Your task to perform on an android device: check storage Image 0: 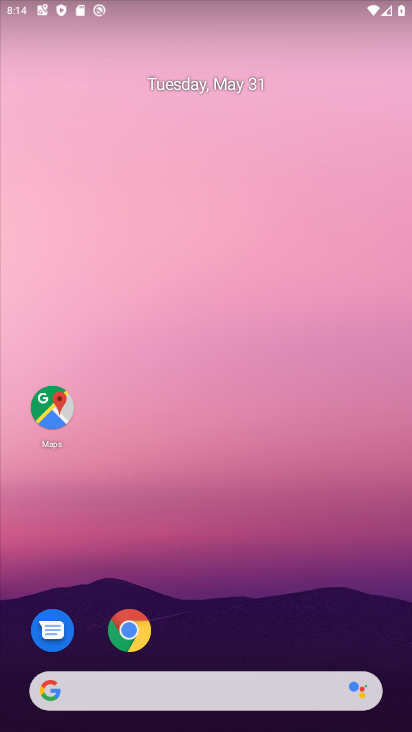
Step 0: drag from (197, 535) to (189, 212)
Your task to perform on an android device: check storage Image 1: 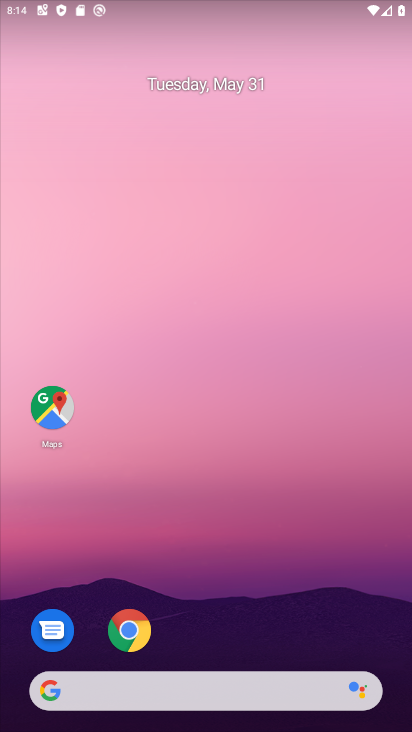
Step 1: drag from (206, 626) to (108, 0)
Your task to perform on an android device: check storage Image 2: 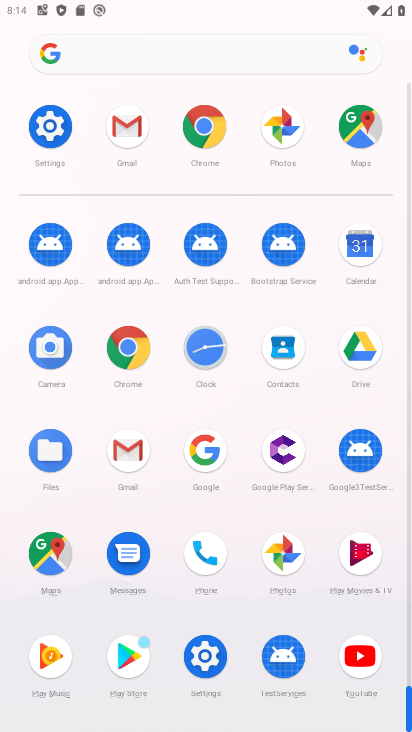
Step 2: click (41, 126)
Your task to perform on an android device: check storage Image 3: 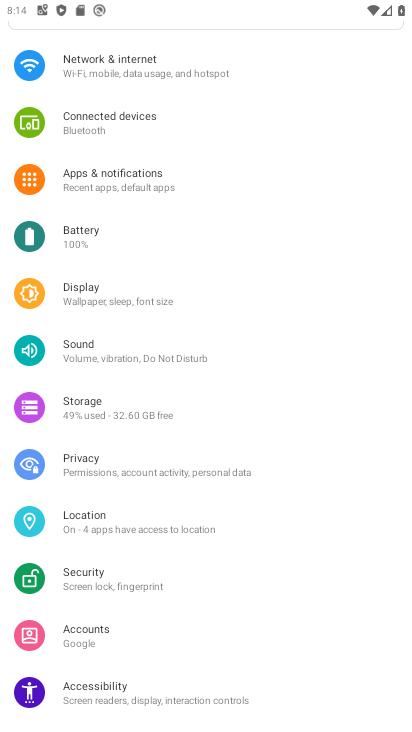
Step 3: click (121, 408)
Your task to perform on an android device: check storage Image 4: 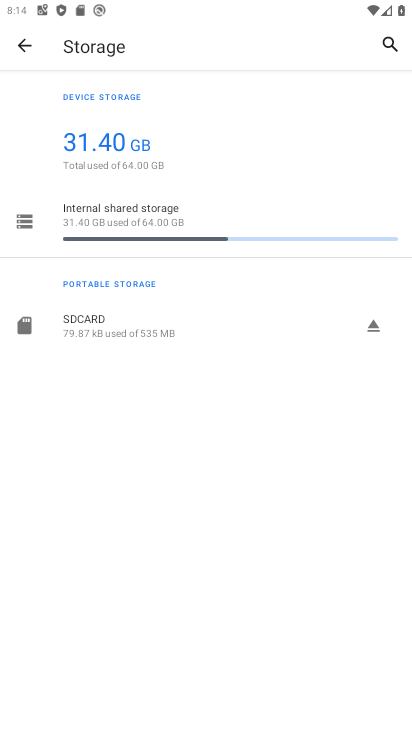
Step 4: task complete